Your task to perform on an android device: Open display settings Image 0: 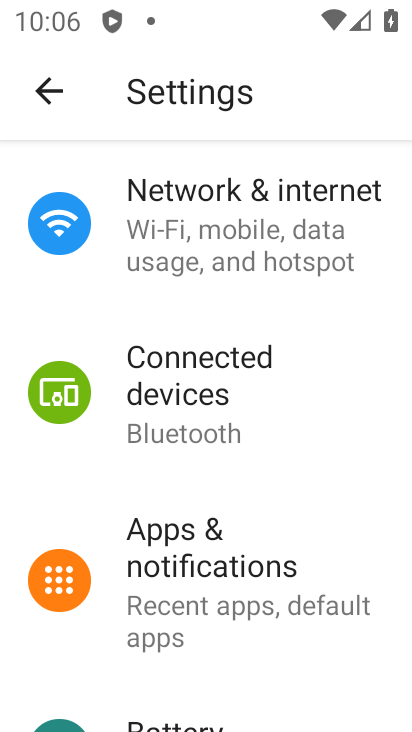
Step 0: drag from (392, 642) to (354, 187)
Your task to perform on an android device: Open display settings Image 1: 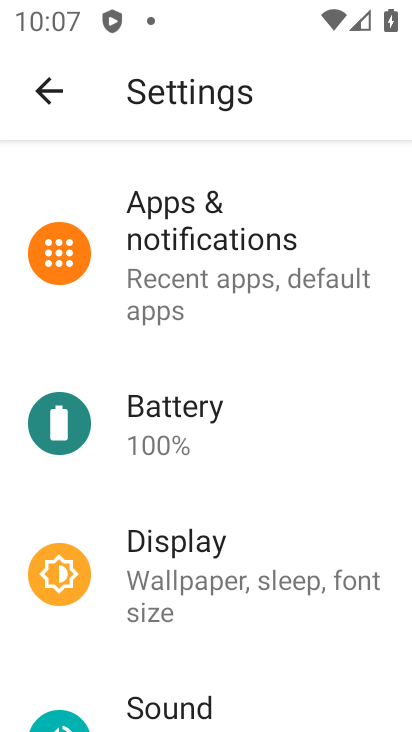
Step 1: drag from (357, 655) to (329, 316)
Your task to perform on an android device: Open display settings Image 2: 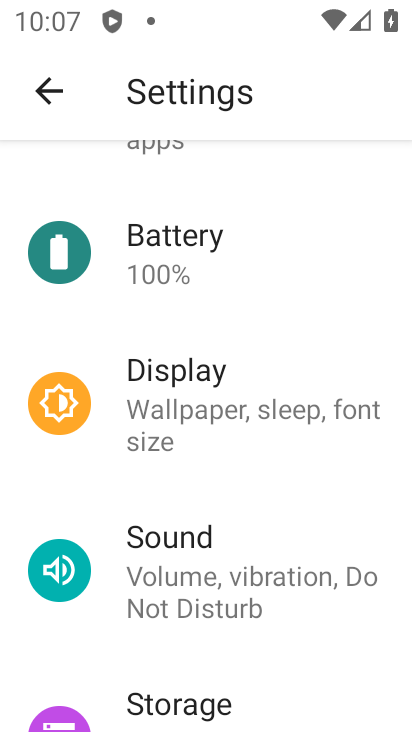
Step 2: click (169, 391)
Your task to perform on an android device: Open display settings Image 3: 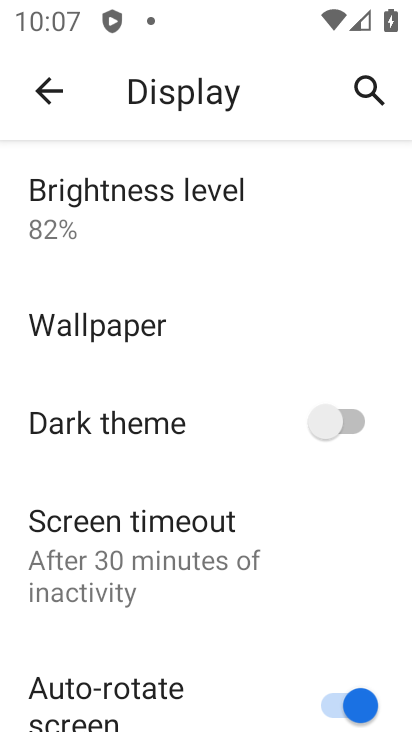
Step 3: task complete